Your task to perform on an android device: Go to settings Image 0: 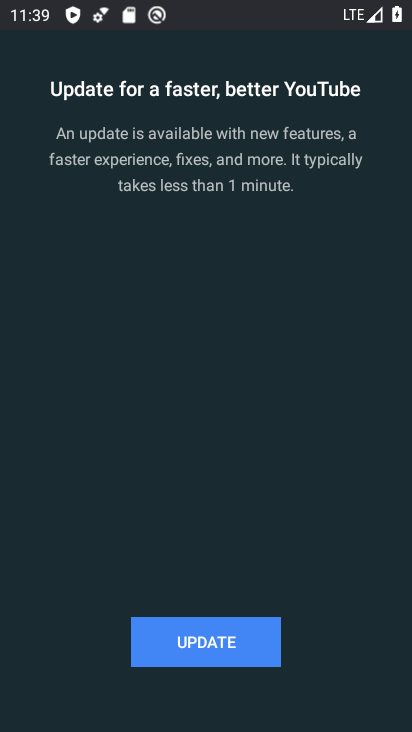
Step 0: press home button
Your task to perform on an android device: Go to settings Image 1: 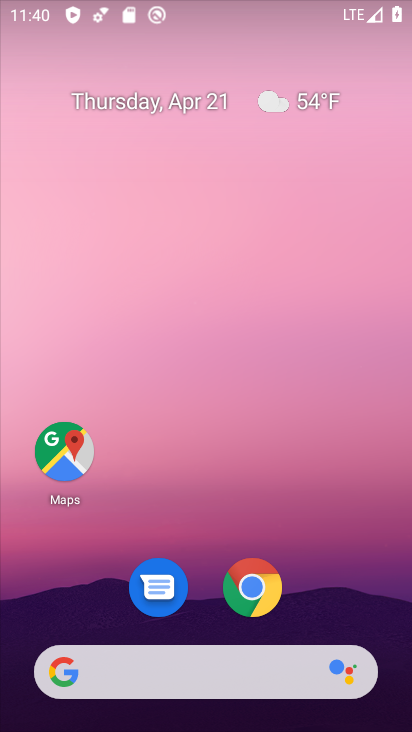
Step 1: drag from (178, 554) to (253, 79)
Your task to perform on an android device: Go to settings Image 2: 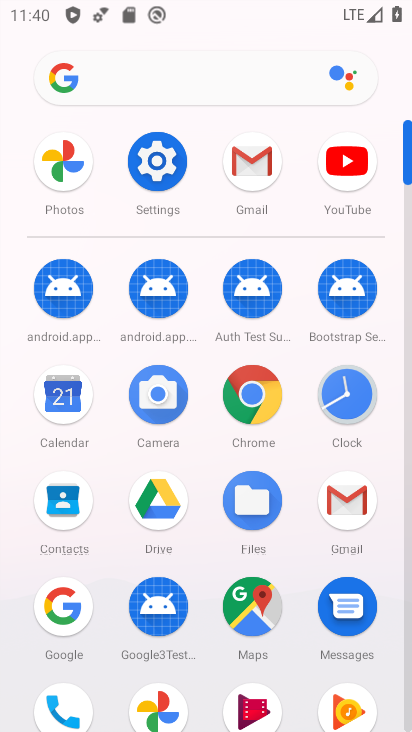
Step 2: click (165, 158)
Your task to perform on an android device: Go to settings Image 3: 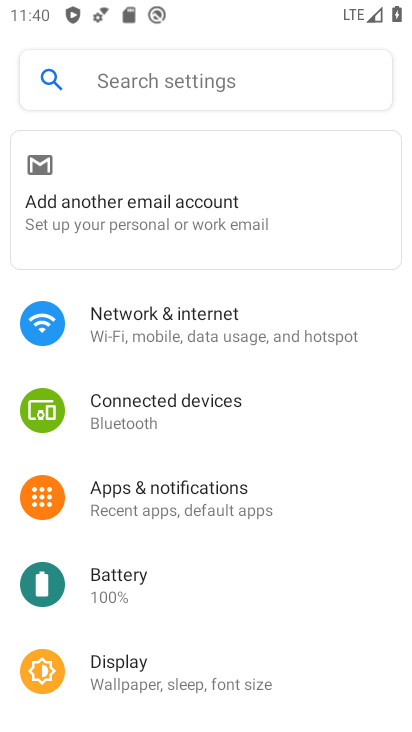
Step 3: task complete